Your task to perform on an android device: Open Reddit.com Image 0: 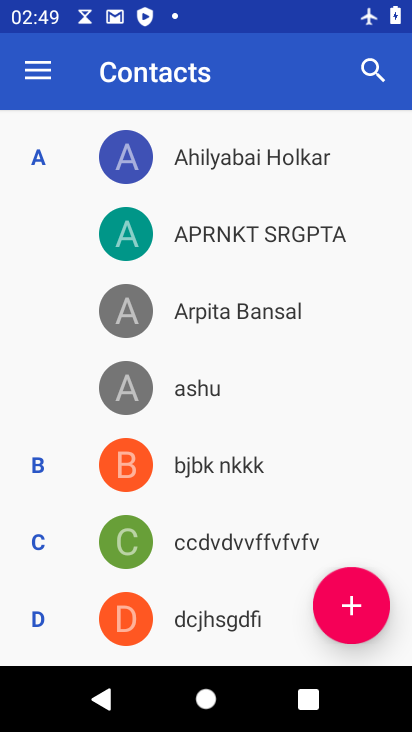
Step 0: press home button
Your task to perform on an android device: Open Reddit.com Image 1: 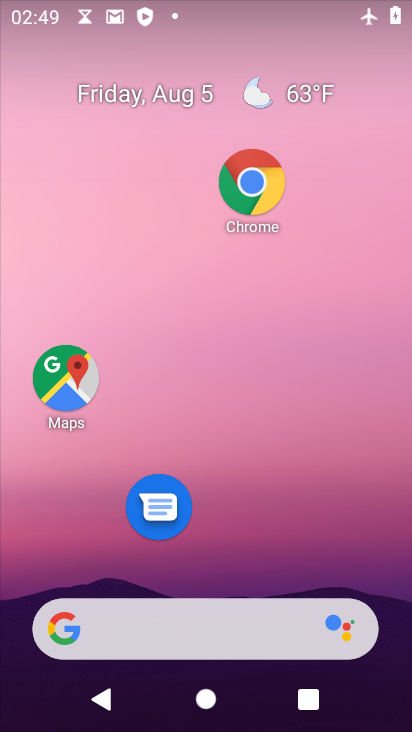
Step 1: drag from (194, 585) to (202, 122)
Your task to perform on an android device: Open Reddit.com Image 2: 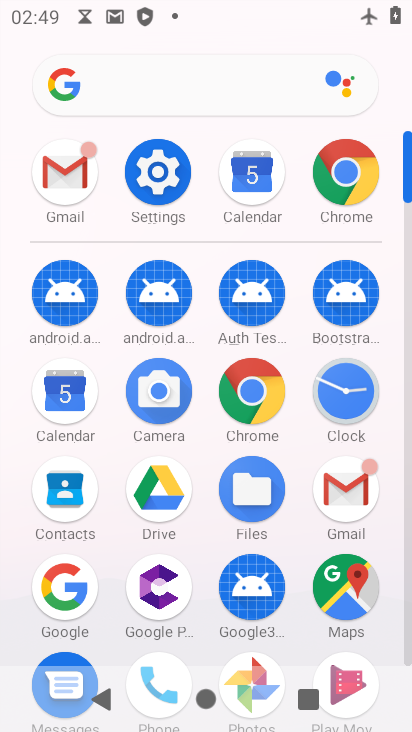
Step 2: click (346, 198)
Your task to perform on an android device: Open Reddit.com Image 3: 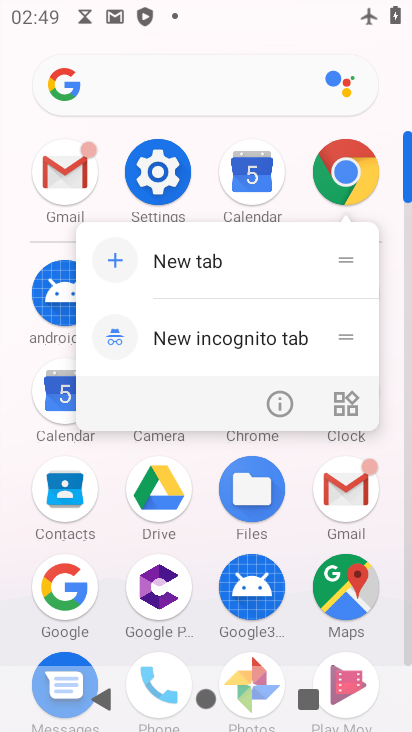
Step 3: click (344, 176)
Your task to perform on an android device: Open Reddit.com Image 4: 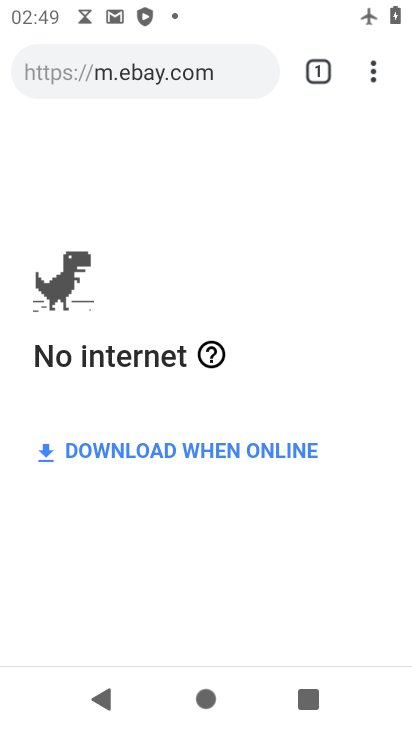
Step 4: click (179, 64)
Your task to perform on an android device: Open Reddit.com Image 5: 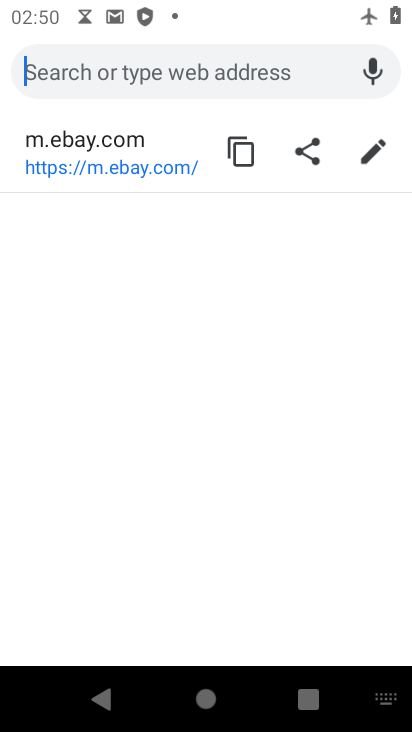
Step 5: type "reddit.com"
Your task to perform on an android device: Open Reddit.com Image 6: 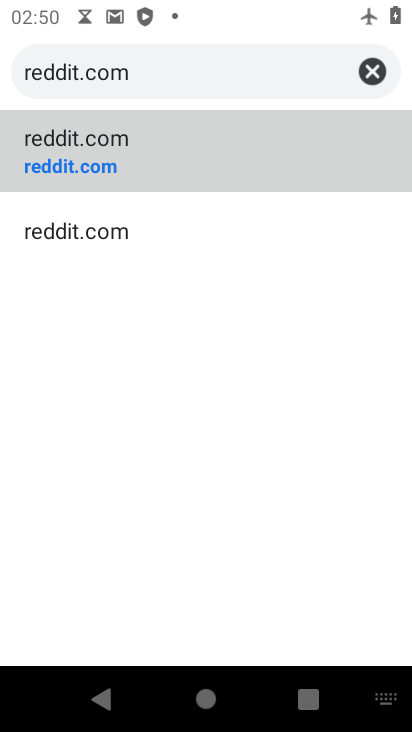
Step 6: click (123, 164)
Your task to perform on an android device: Open Reddit.com Image 7: 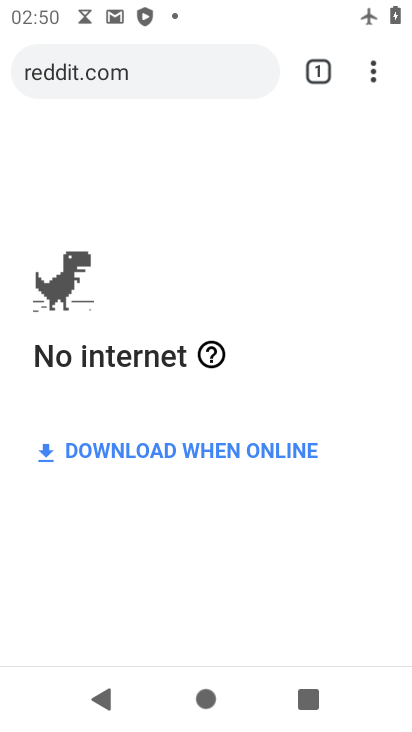
Step 7: task complete